Your task to perform on an android device: See recent photos Image 0: 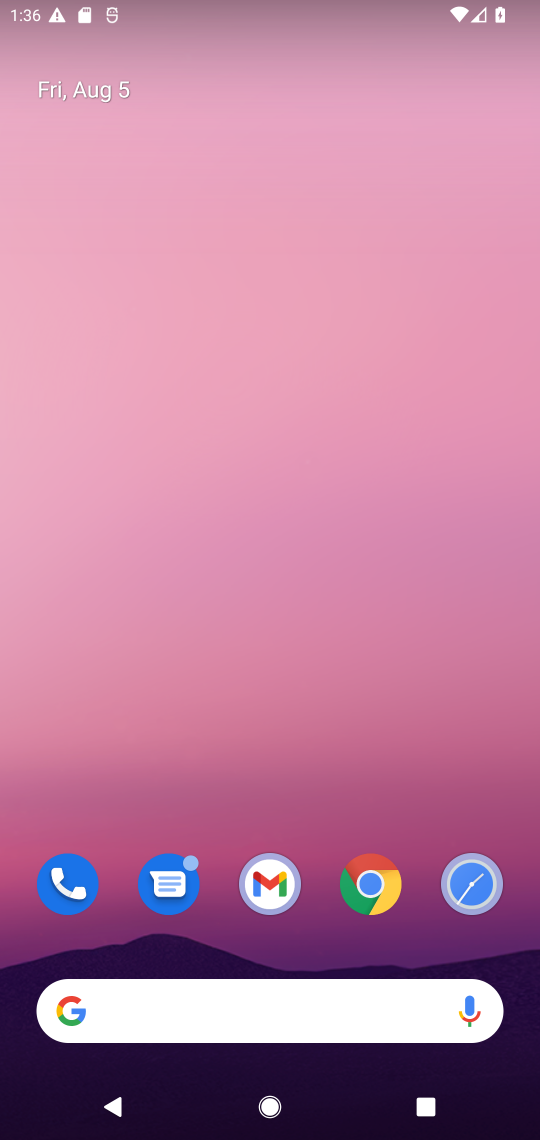
Step 0: drag from (427, 933) to (263, 0)
Your task to perform on an android device: See recent photos Image 1: 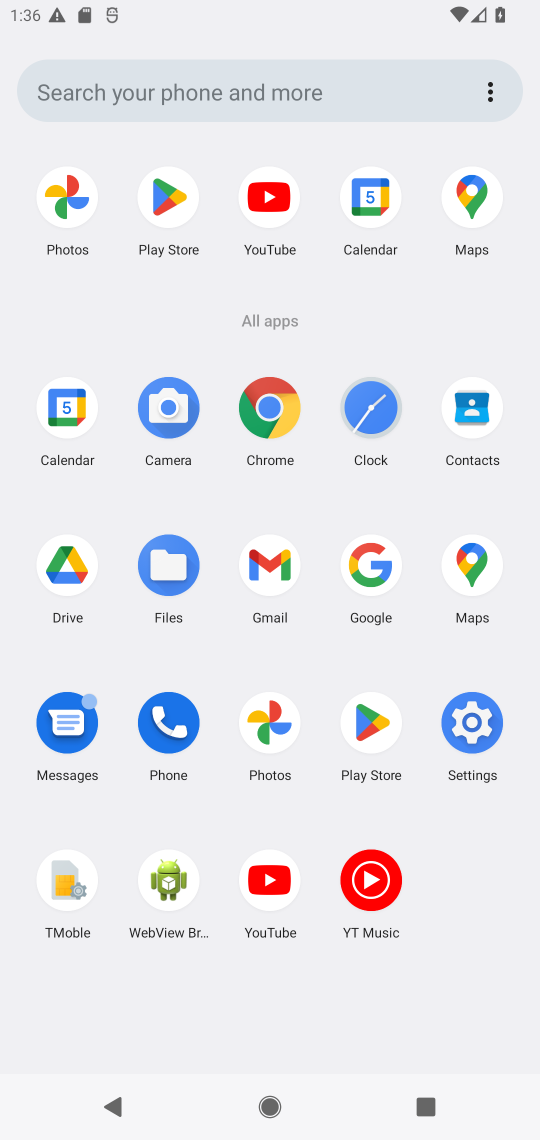
Step 1: click (243, 732)
Your task to perform on an android device: See recent photos Image 2: 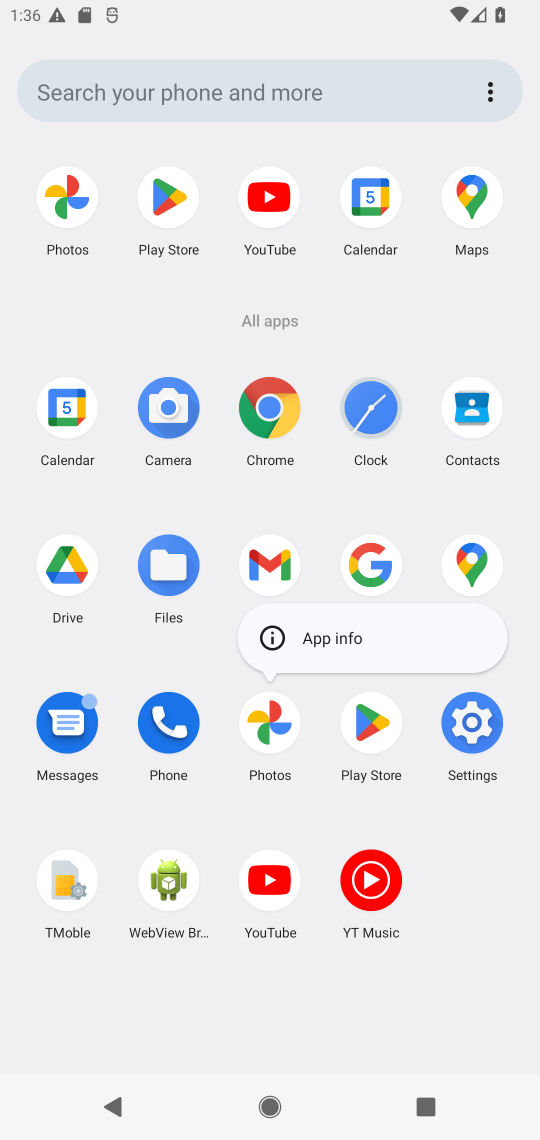
Step 2: click (291, 746)
Your task to perform on an android device: See recent photos Image 3: 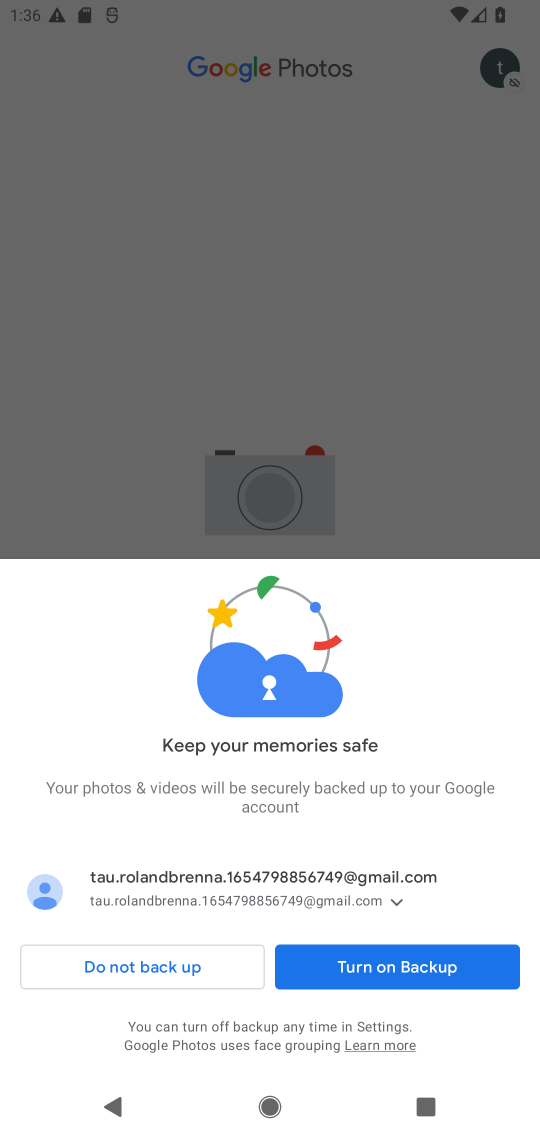
Step 3: click (376, 967)
Your task to perform on an android device: See recent photos Image 4: 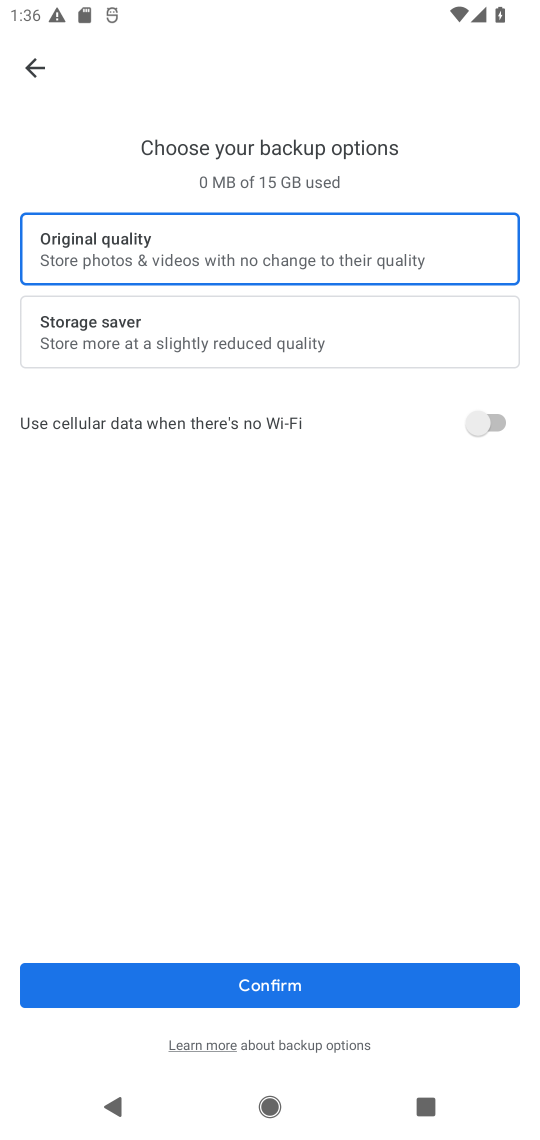
Step 4: click (255, 976)
Your task to perform on an android device: See recent photos Image 5: 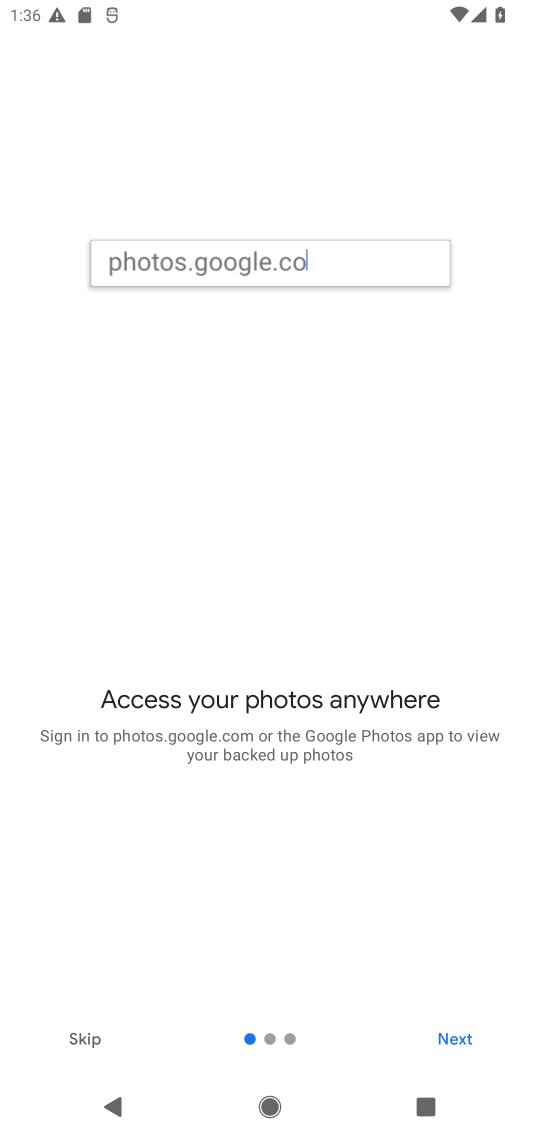
Step 5: click (467, 1016)
Your task to perform on an android device: See recent photos Image 6: 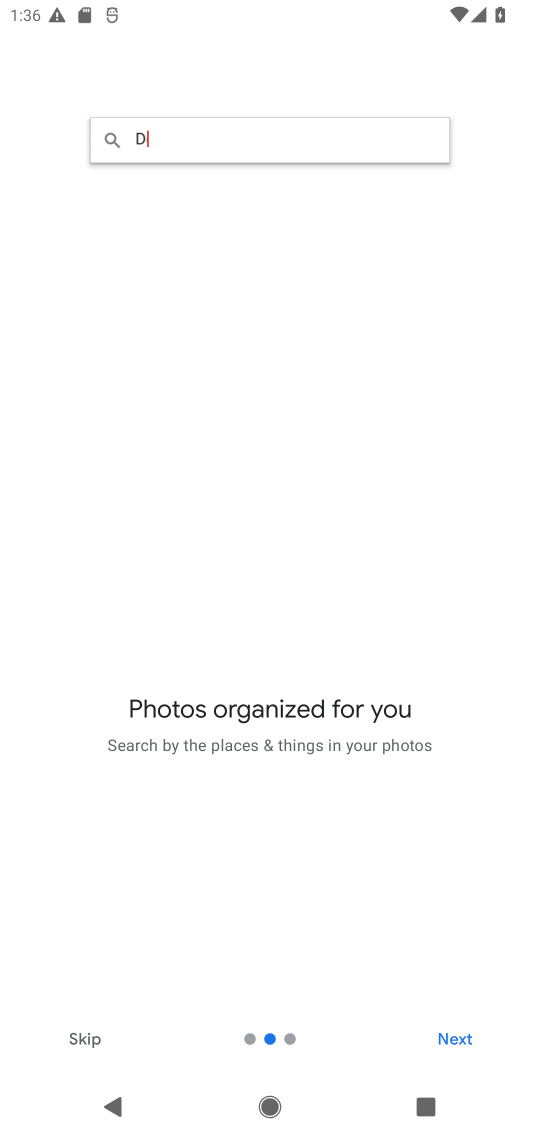
Step 6: click (461, 1037)
Your task to perform on an android device: See recent photos Image 7: 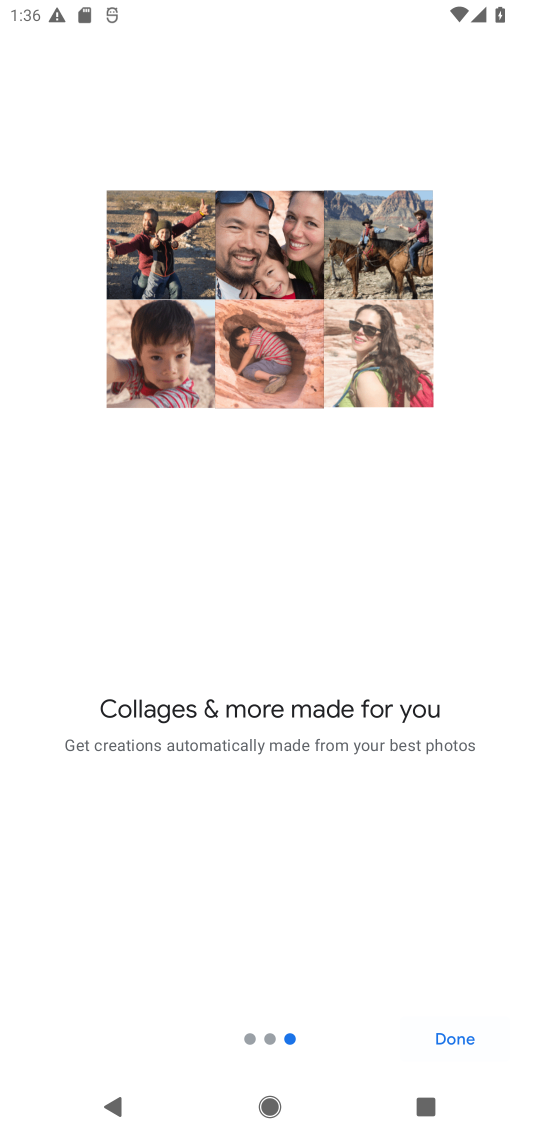
Step 7: click (461, 1037)
Your task to perform on an android device: See recent photos Image 8: 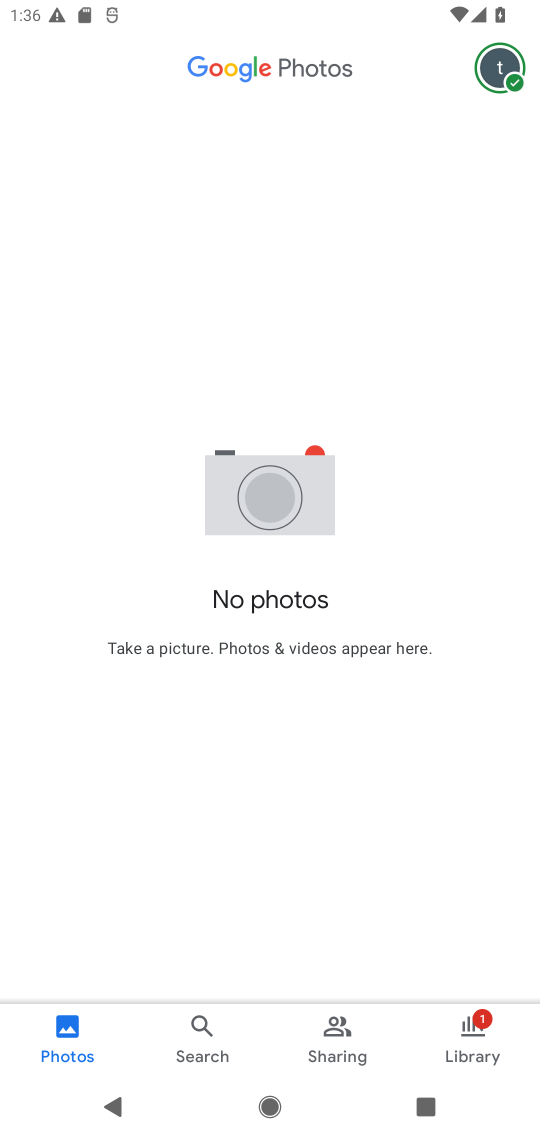
Step 8: task complete